Your task to perform on an android device: toggle notification dots Image 0: 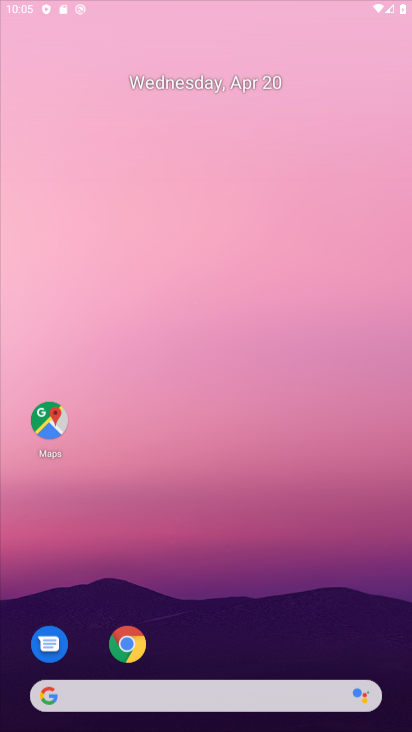
Step 0: drag from (208, 136) to (221, 57)
Your task to perform on an android device: toggle notification dots Image 1: 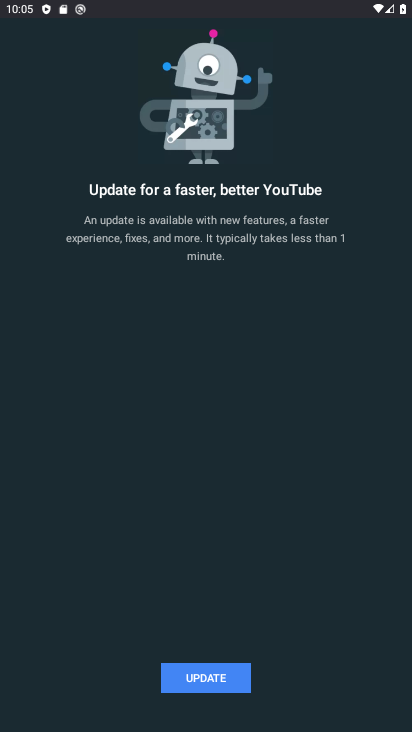
Step 1: press home button
Your task to perform on an android device: toggle notification dots Image 2: 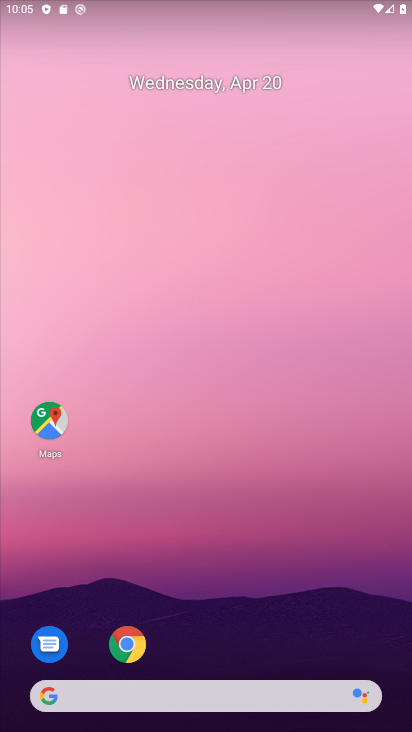
Step 2: drag from (192, 550) to (199, 23)
Your task to perform on an android device: toggle notification dots Image 3: 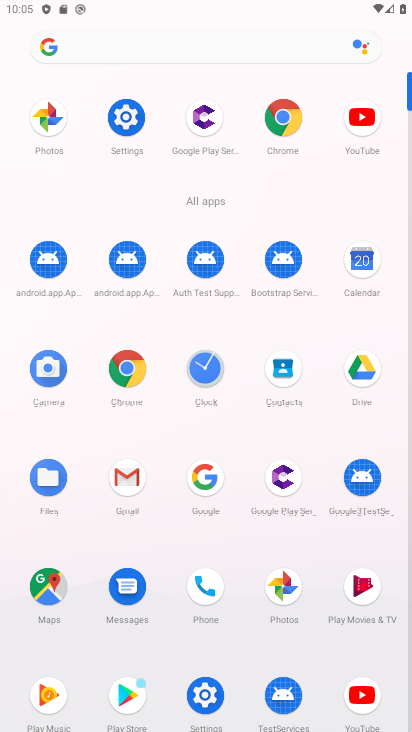
Step 3: click (125, 138)
Your task to perform on an android device: toggle notification dots Image 4: 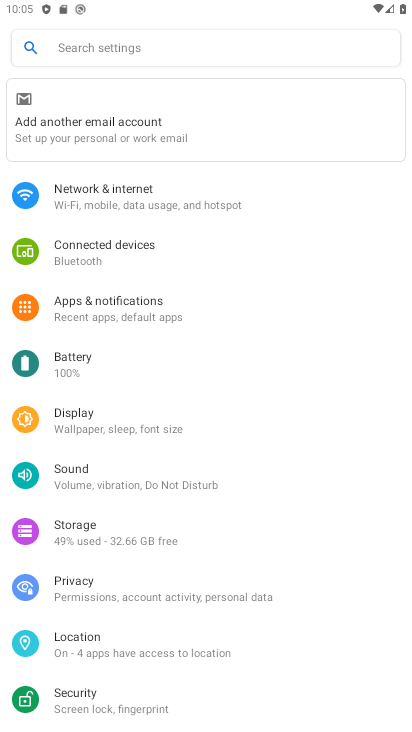
Step 4: click (153, 307)
Your task to perform on an android device: toggle notification dots Image 5: 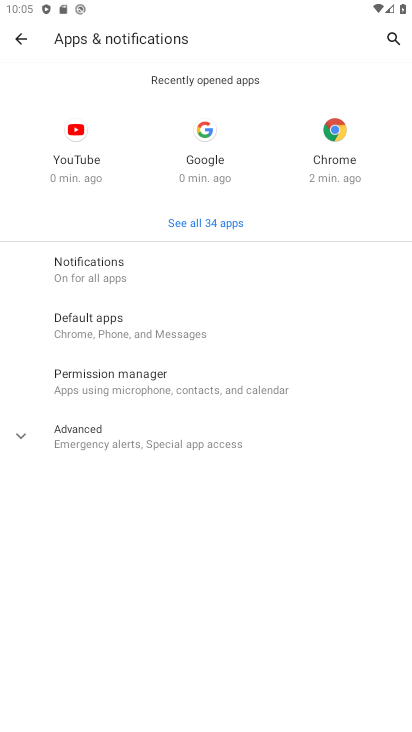
Step 5: click (159, 270)
Your task to perform on an android device: toggle notification dots Image 6: 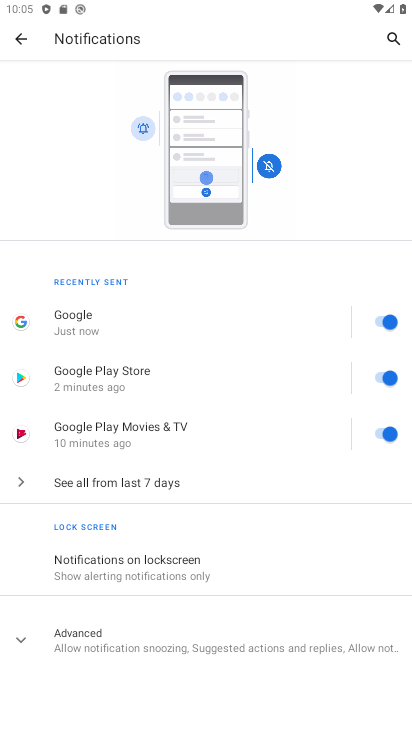
Step 6: click (120, 645)
Your task to perform on an android device: toggle notification dots Image 7: 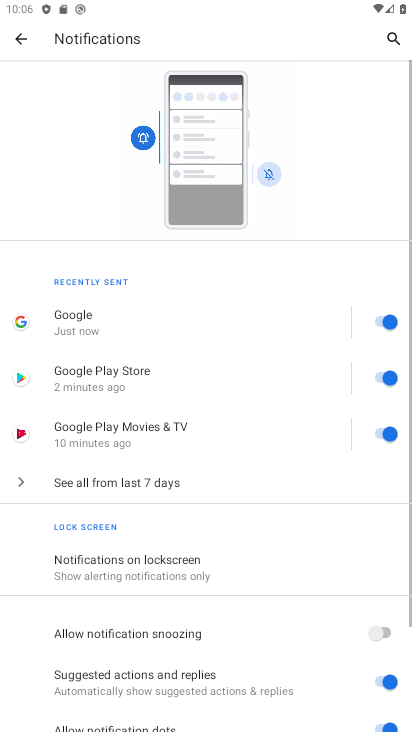
Step 7: drag from (139, 520) to (188, 146)
Your task to perform on an android device: toggle notification dots Image 8: 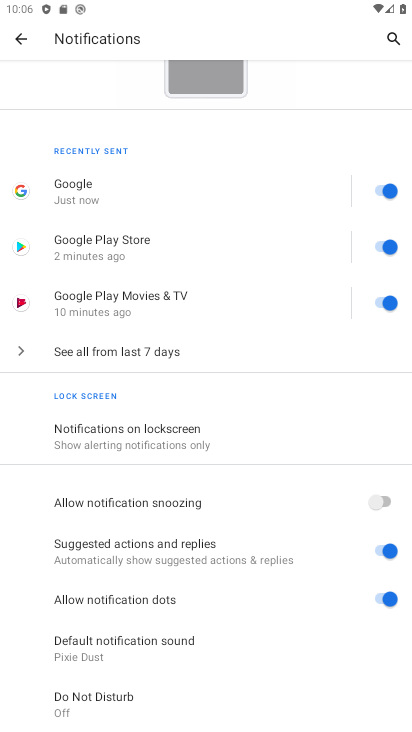
Step 8: click (383, 600)
Your task to perform on an android device: toggle notification dots Image 9: 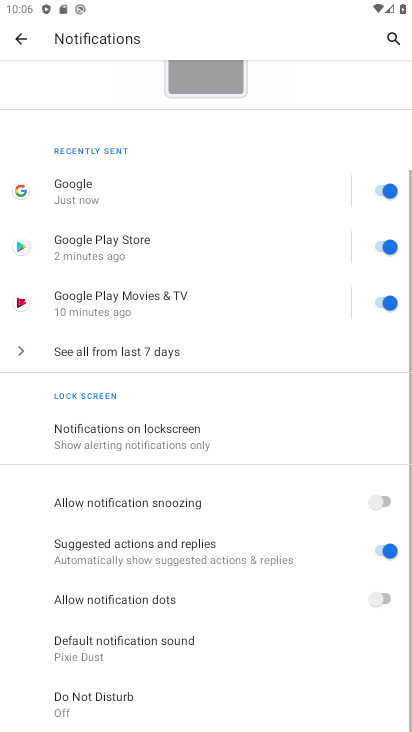
Step 9: task complete